Your task to perform on an android device: Open internet settings Image 0: 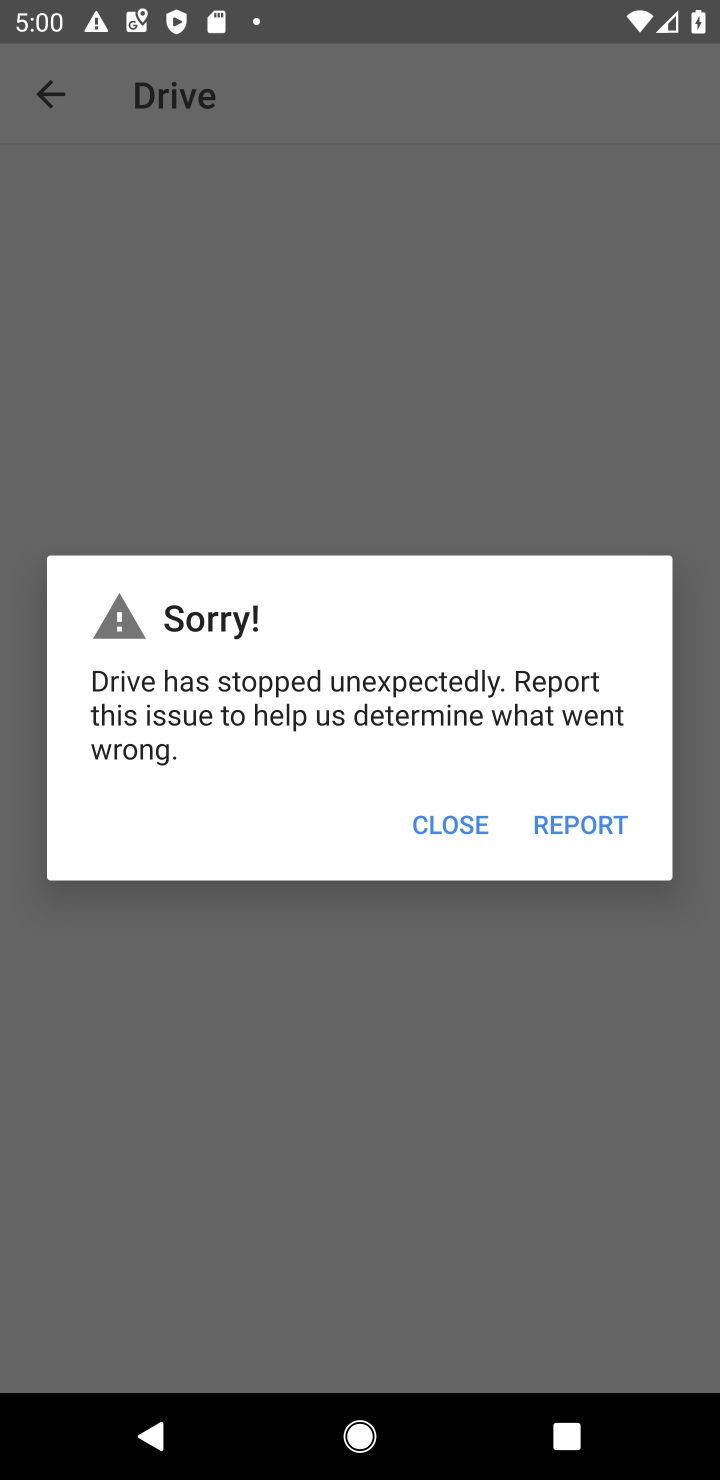
Step 0: press home button
Your task to perform on an android device: Open internet settings Image 1: 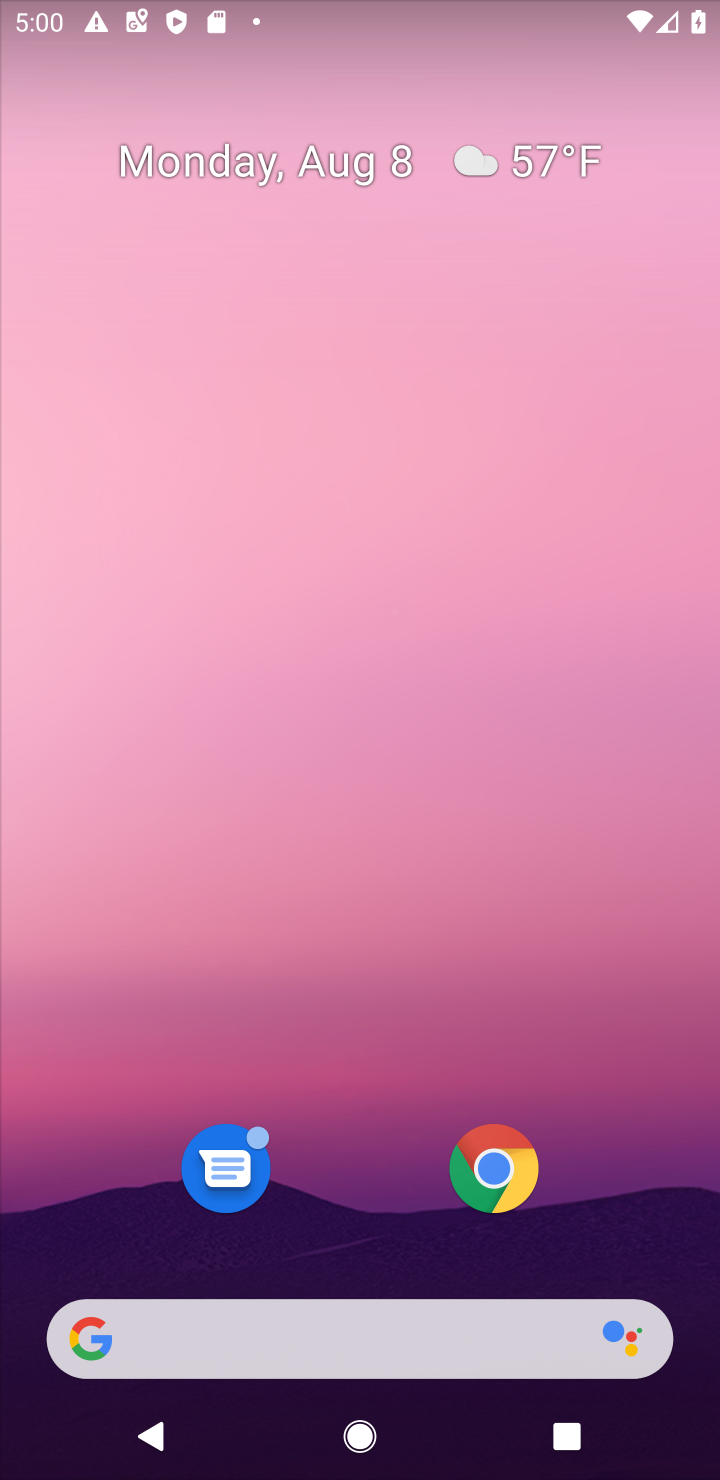
Step 1: drag from (340, 1350) to (372, 464)
Your task to perform on an android device: Open internet settings Image 2: 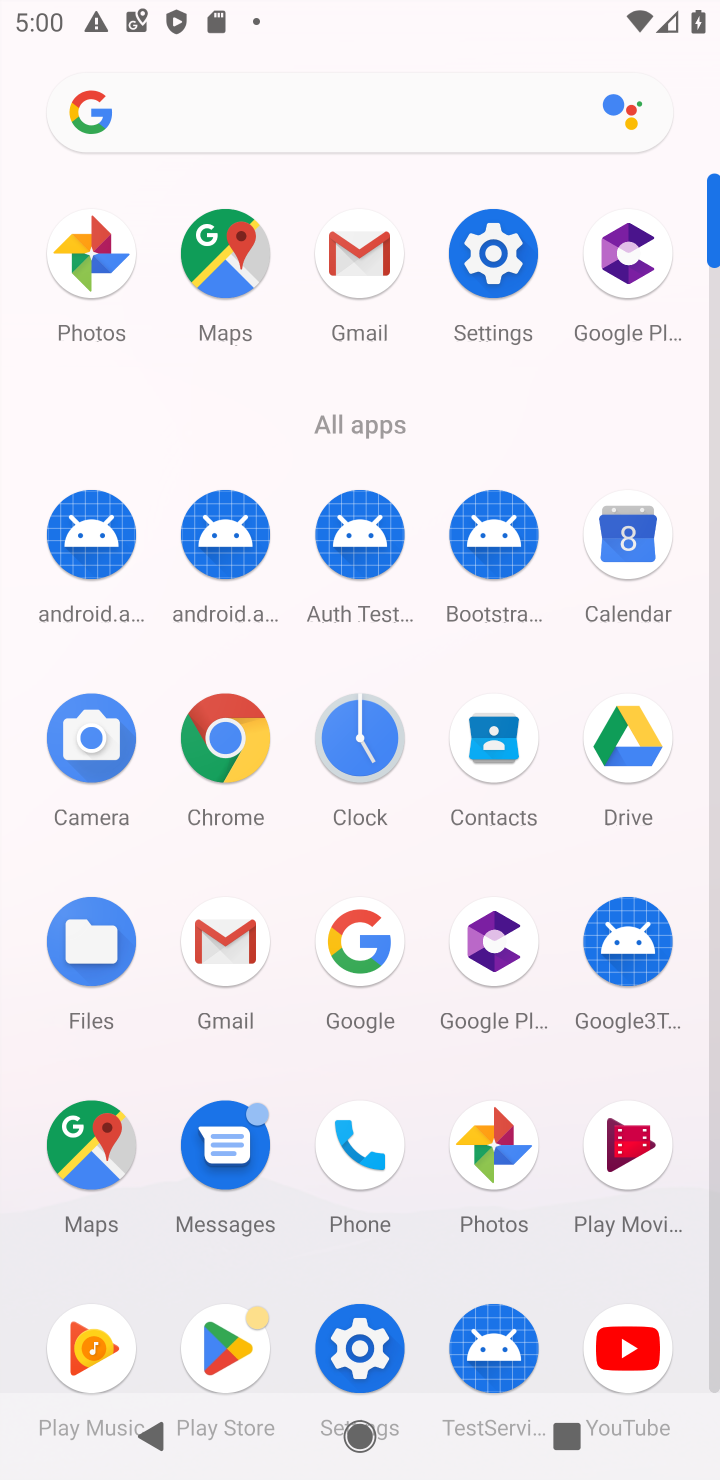
Step 2: click (520, 264)
Your task to perform on an android device: Open internet settings Image 3: 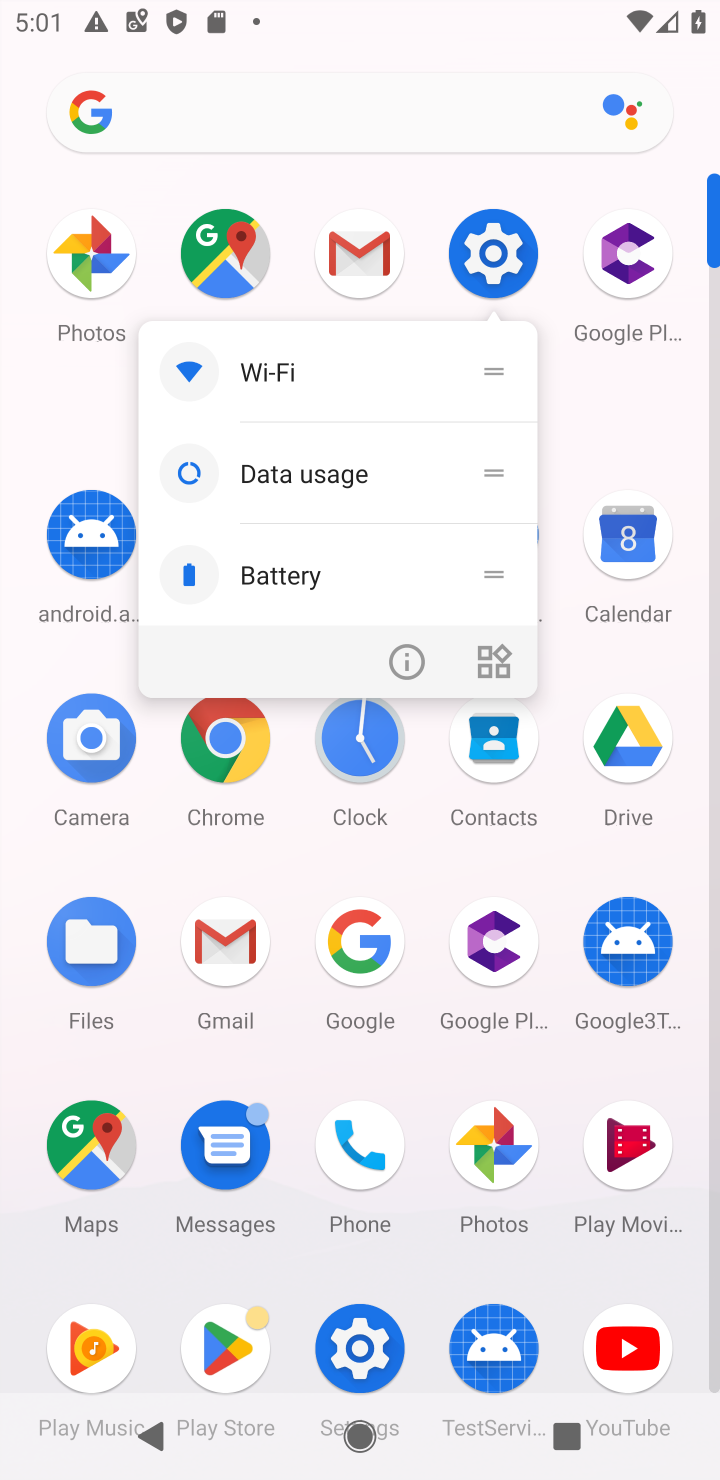
Step 3: click (460, 273)
Your task to perform on an android device: Open internet settings Image 4: 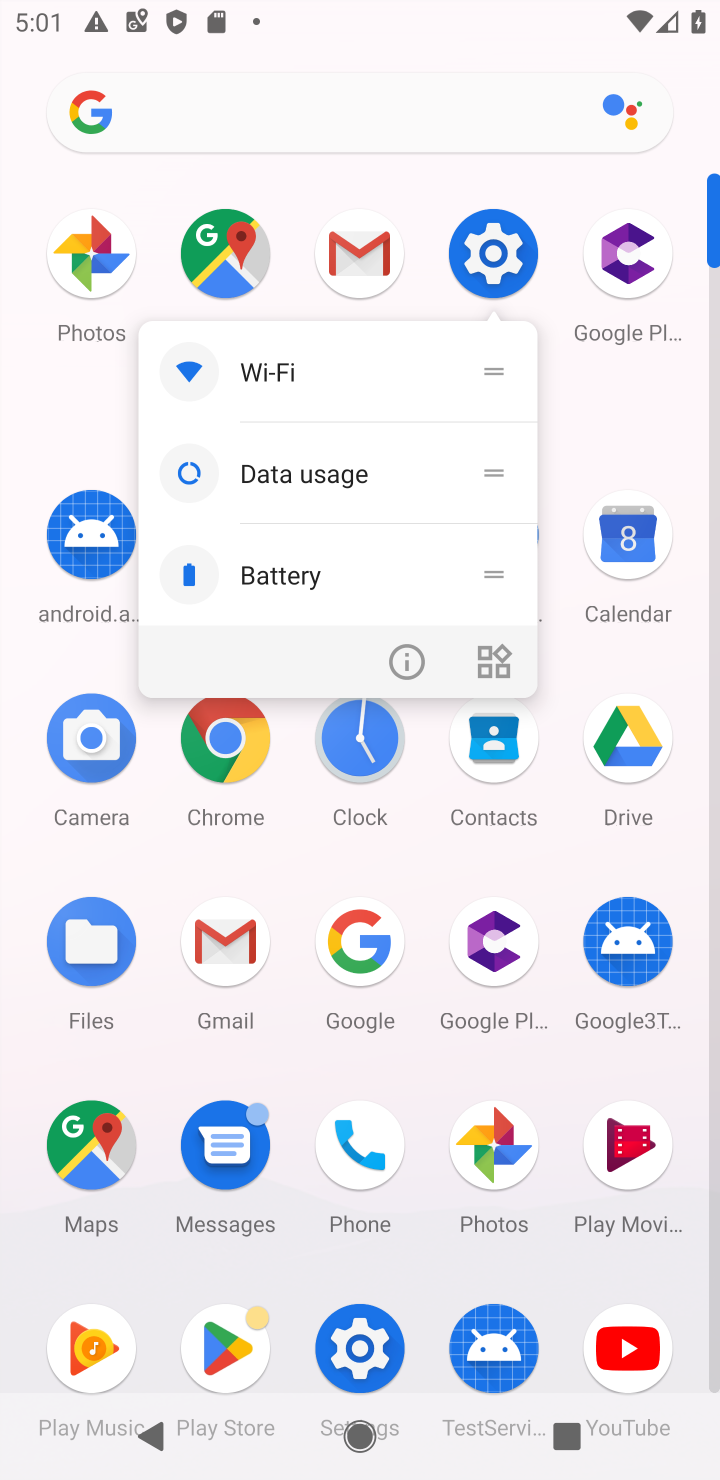
Step 4: click (461, 275)
Your task to perform on an android device: Open internet settings Image 5: 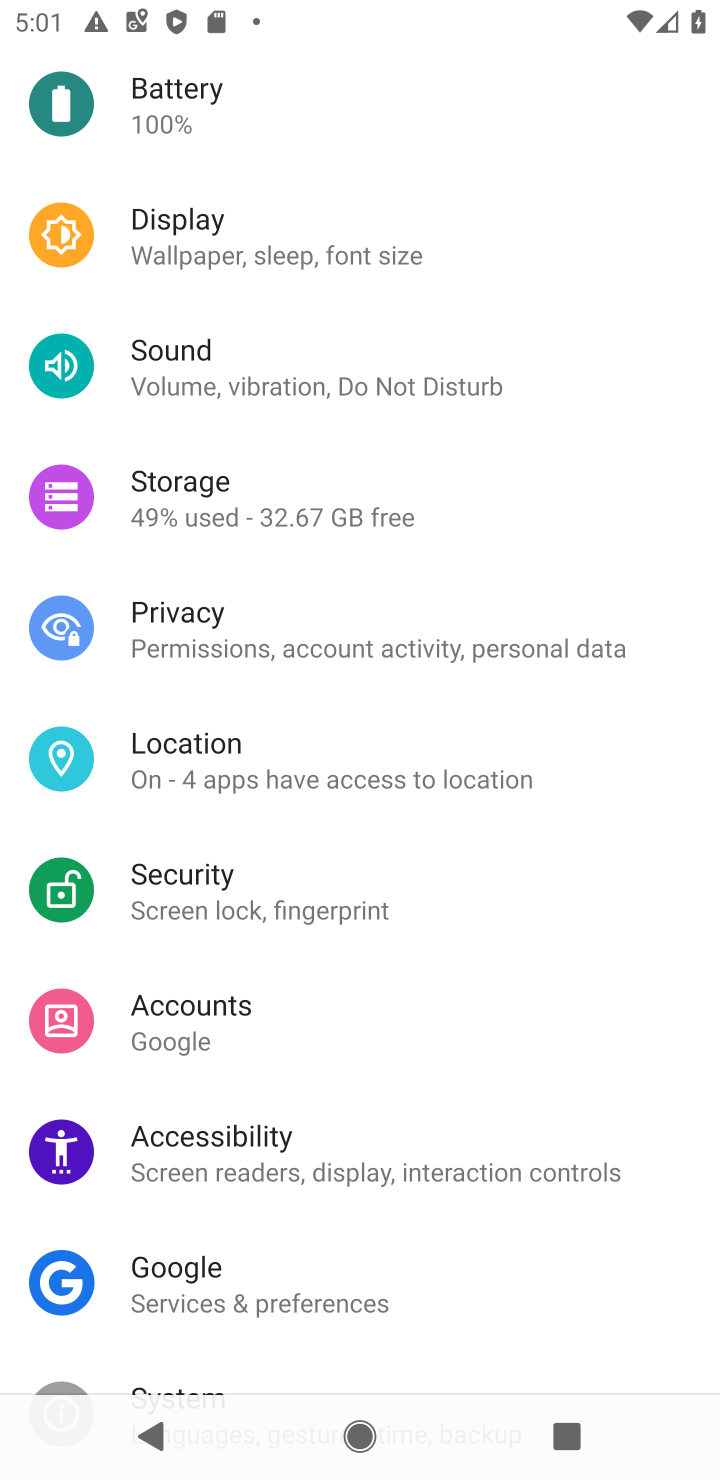
Step 5: drag from (364, 270) to (395, 1180)
Your task to perform on an android device: Open internet settings Image 6: 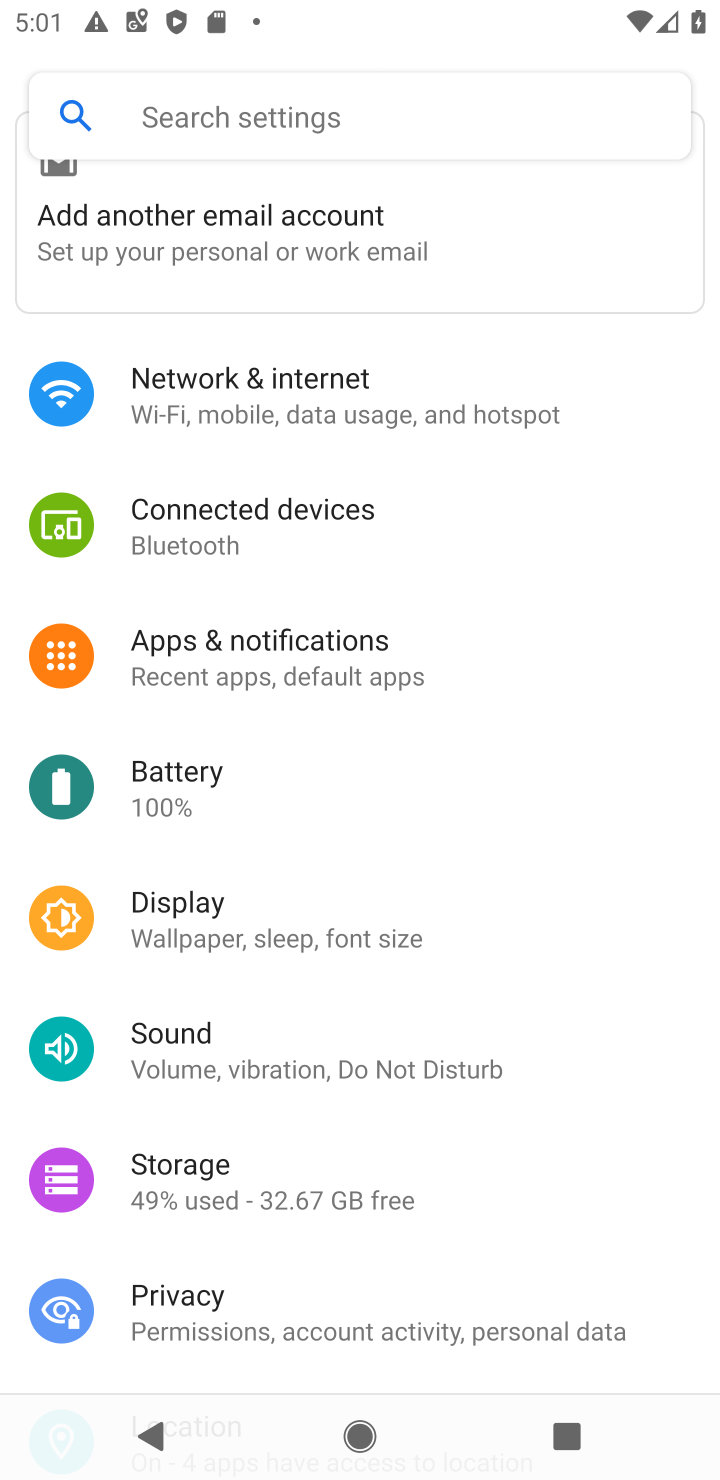
Step 6: click (285, 426)
Your task to perform on an android device: Open internet settings Image 7: 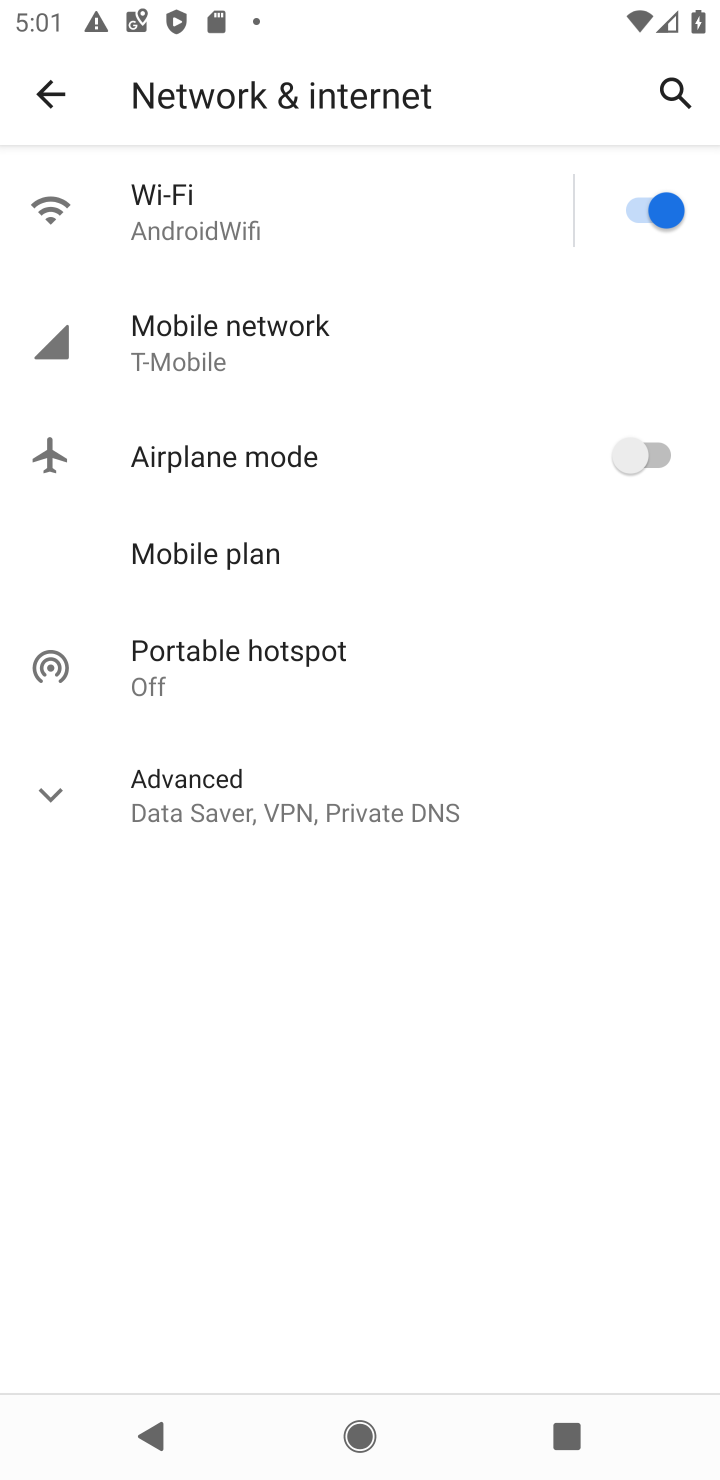
Step 7: task complete